Your task to perform on an android device: add a contact in the contacts app Image 0: 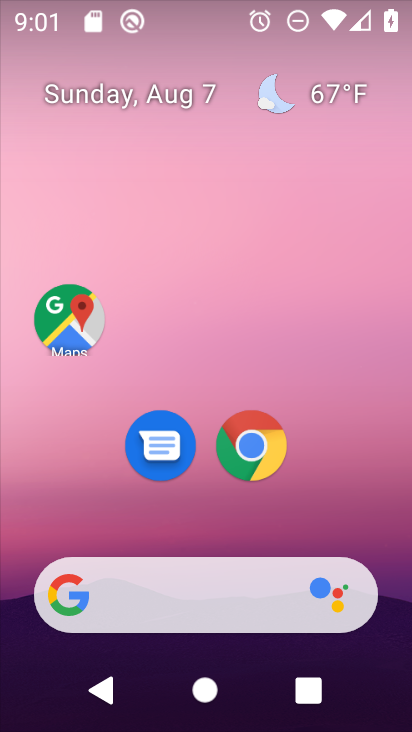
Step 0: drag from (206, 519) to (221, 57)
Your task to perform on an android device: add a contact in the contacts app Image 1: 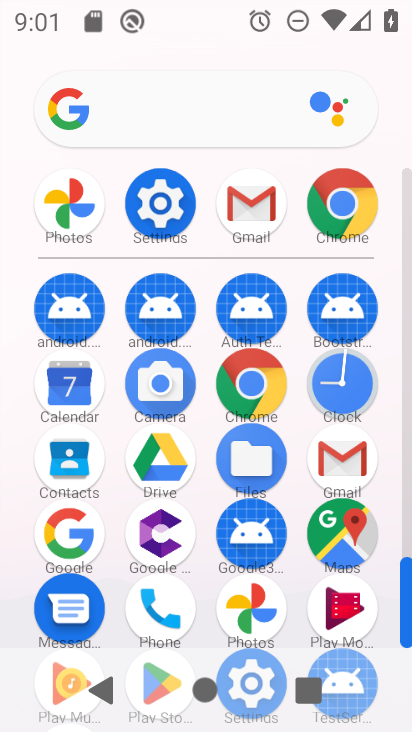
Step 1: click (64, 455)
Your task to perform on an android device: add a contact in the contacts app Image 2: 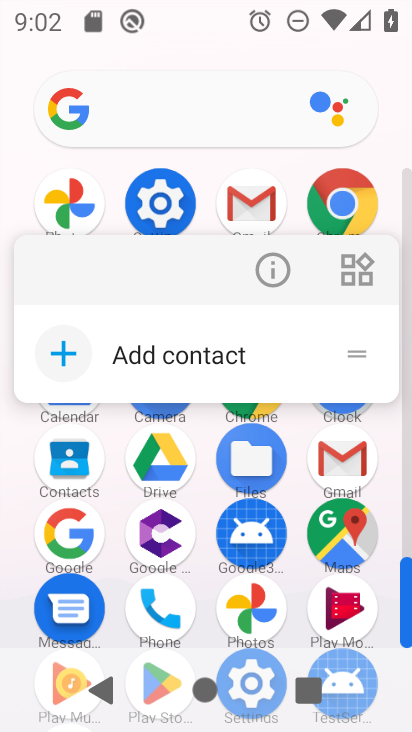
Step 2: click (69, 461)
Your task to perform on an android device: add a contact in the contacts app Image 3: 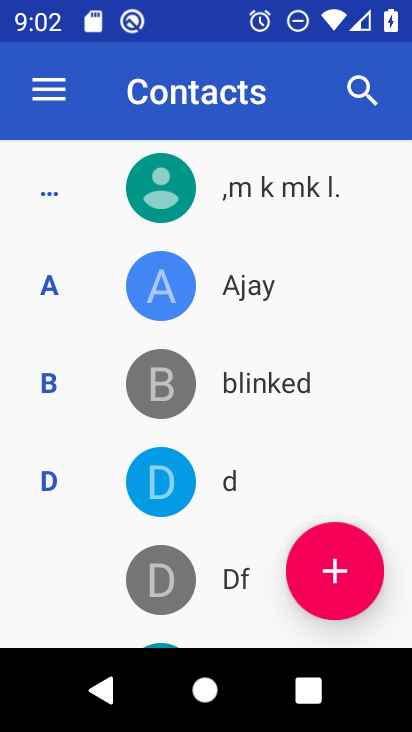
Step 3: click (331, 568)
Your task to perform on an android device: add a contact in the contacts app Image 4: 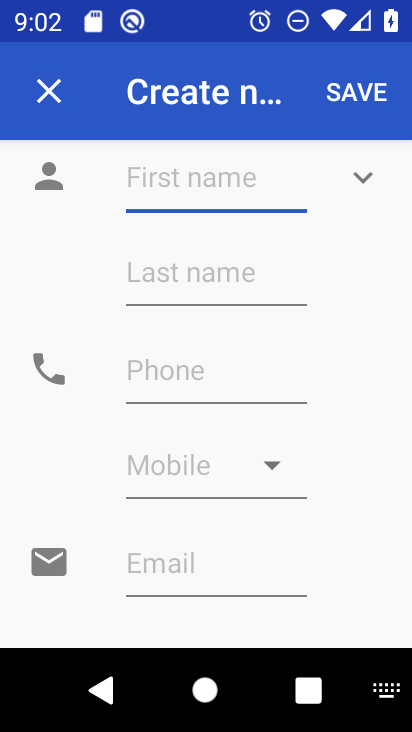
Step 4: type "aprnkt"
Your task to perform on an android device: add a contact in the contacts app Image 5: 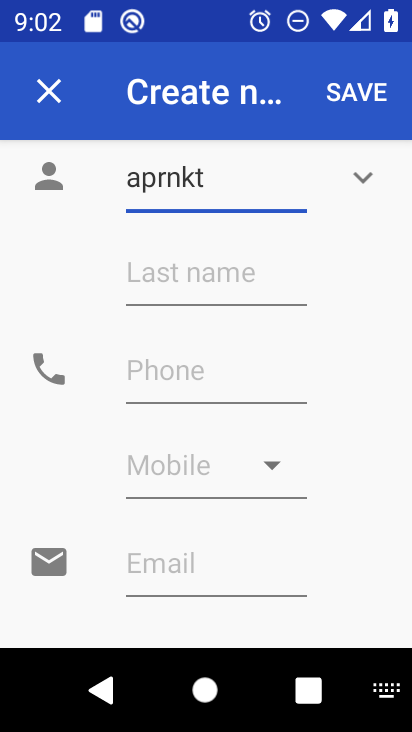
Step 5: click (363, 95)
Your task to perform on an android device: add a contact in the contacts app Image 6: 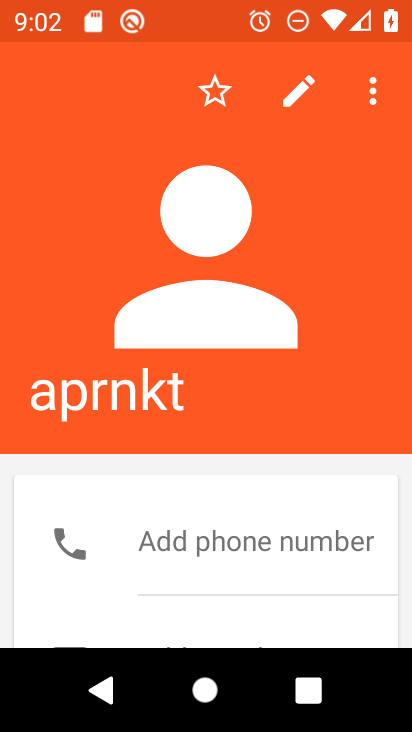
Step 6: task complete